Your task to perform on an android device: turn on data saver in the chrome app Image 0: 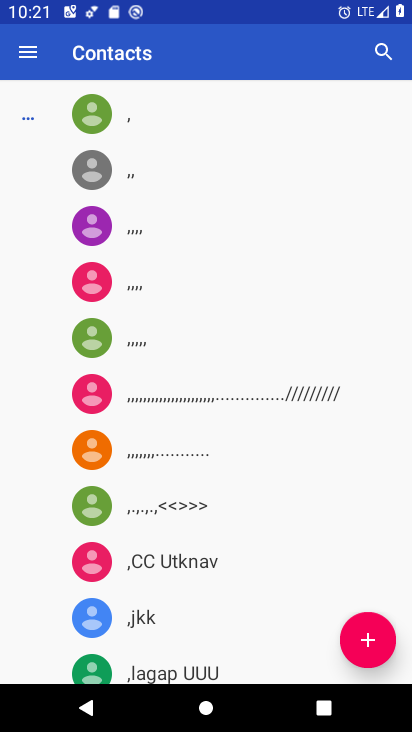
Step 0: press home button
Your task to perform on an android device: turn on data saver in the chrome app Image 1: 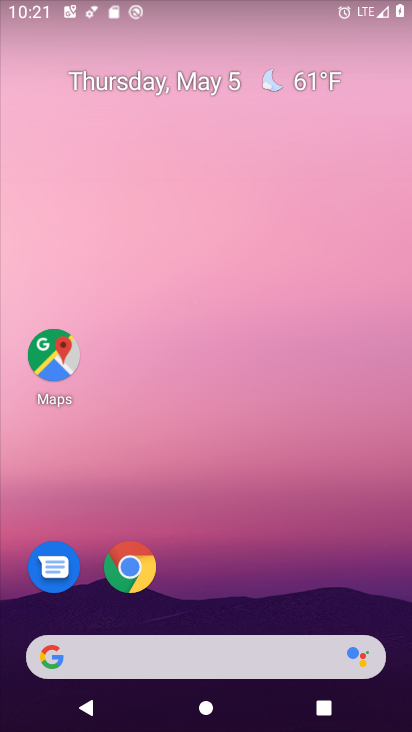
Step 1: click (126, 558)
Your task to perform on an android device: turn on data saver in the chrome app Image 2: 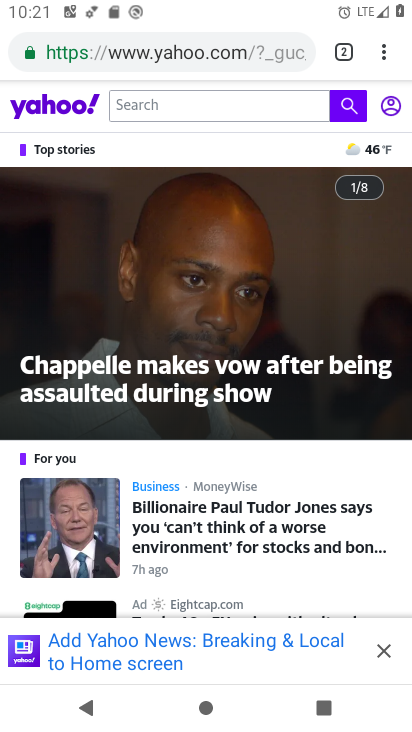
Step 2: click (394, 56)
Your task to perform on an android device: turn on data saver in the chrome app Image 3: 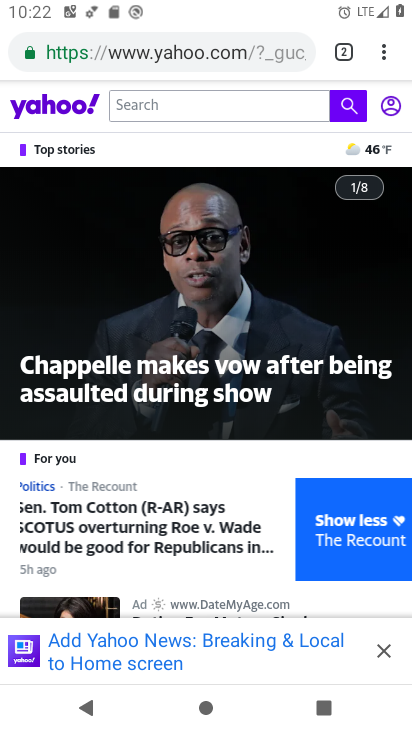
Step 3: click (384, 52)
Your task to perform on an android device: turn on data saver in the chrome app Image 4: 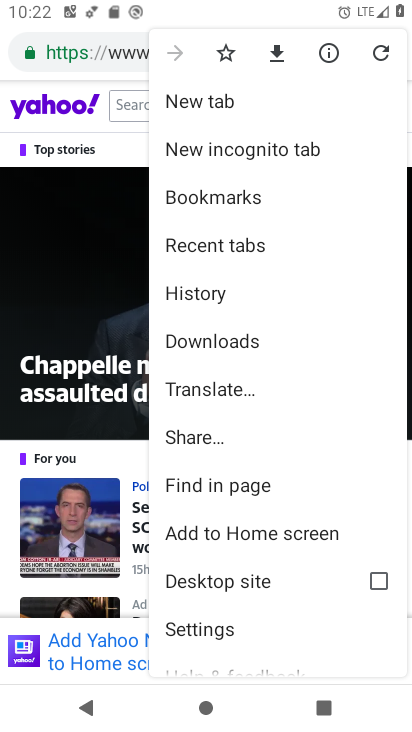
Step 4: click (236, 622)
Your task to perform on an android device: turn on data saver in the chrome app Image 5: 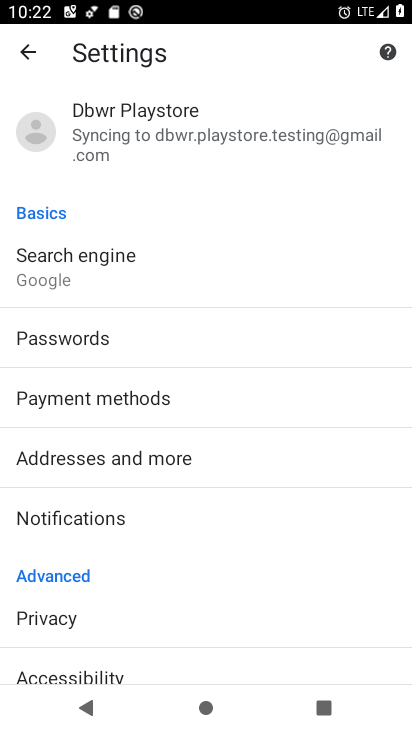
Step 5: drag from (252, 611) to (274, 319)
Your task to perform on an android device: turn on data saver in the chrome app Image 6: 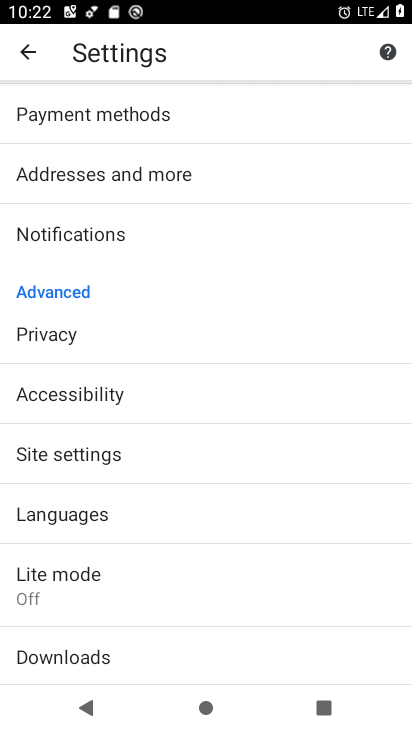
Step 6: click (118, 584)
Your task to perform on an android device: turn on data saver in the chrome app Image 7: 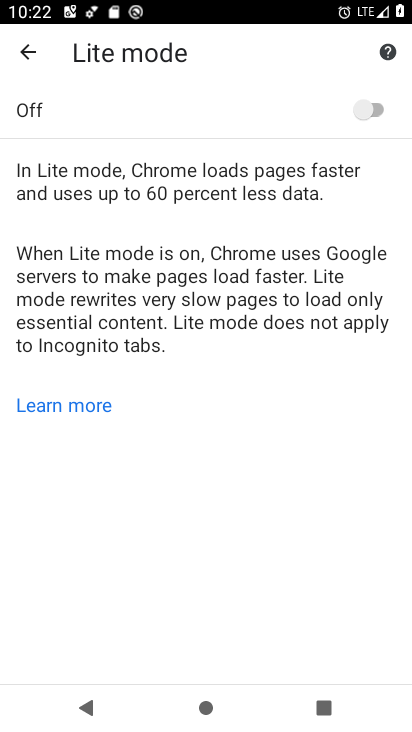
Step 7: click (378, 107)
Your task to perform on an android device: turn on data saver in the chrome app Image 8: 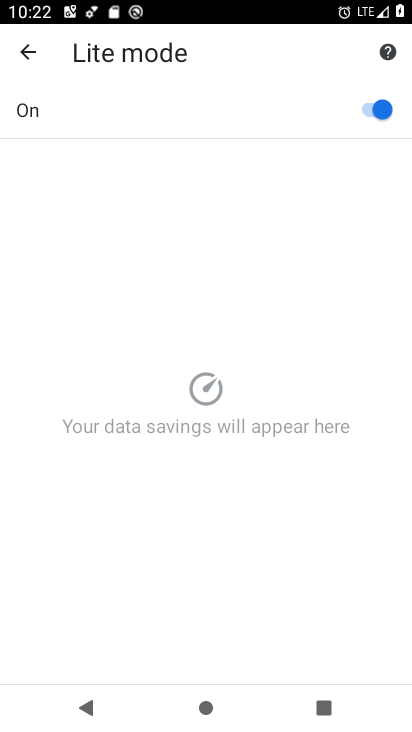
Step 8: task complete